Your task to perform on an android device: Play the last video I watched on Youtube Image 0: 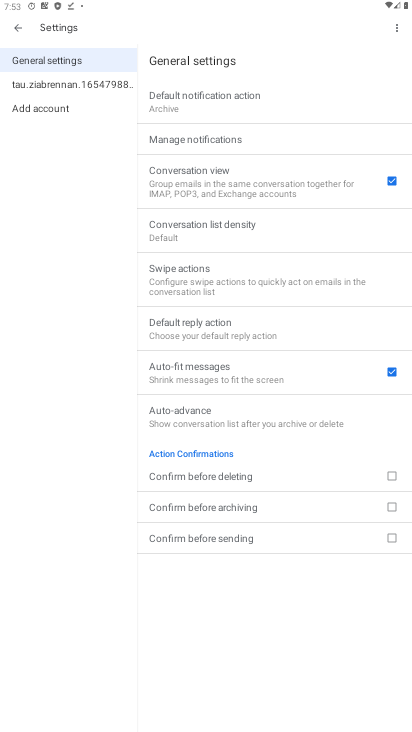
Step 0: press home button
Your task to perform on an android device: Play the last video I watched on Youtube Image 1: 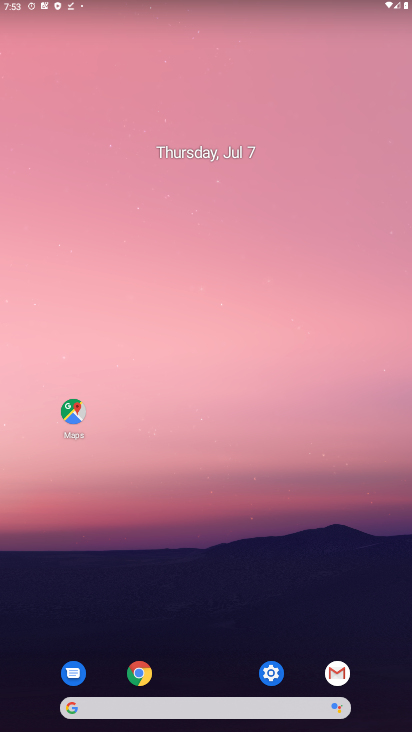
Step 1: drag from (289, 698) to (191, 311)
Your task to perform on an android device: Play the last video I watched on Youtube Image 2: 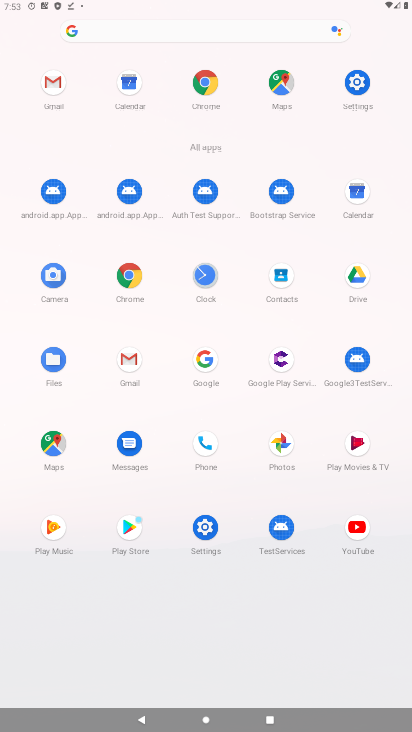
Step 2: click (368, 538)
Your task to perform on an android device: Play the last video I watched on Youtube Image 3: 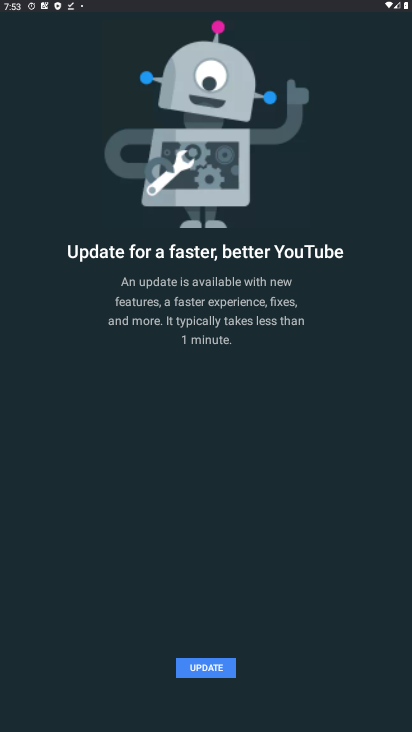
Step 3: click (210, 668)
Your task to perform on an android device: Play the last video I watched on Youtube Image 4: 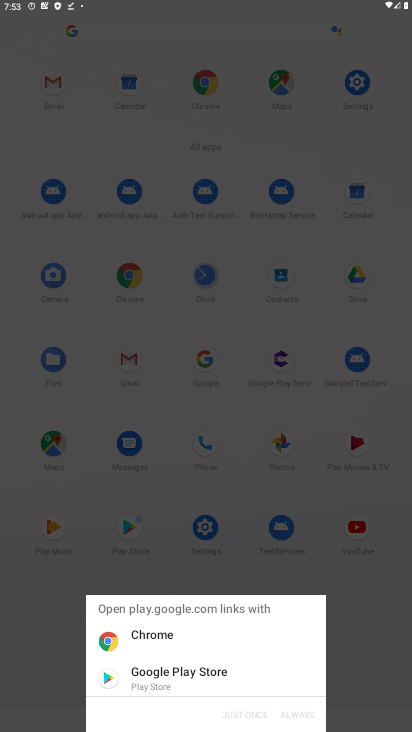
Step 4: click (172, 669)
Your task to perform on an android device: Play the last video I watched on Youtube Image 5: 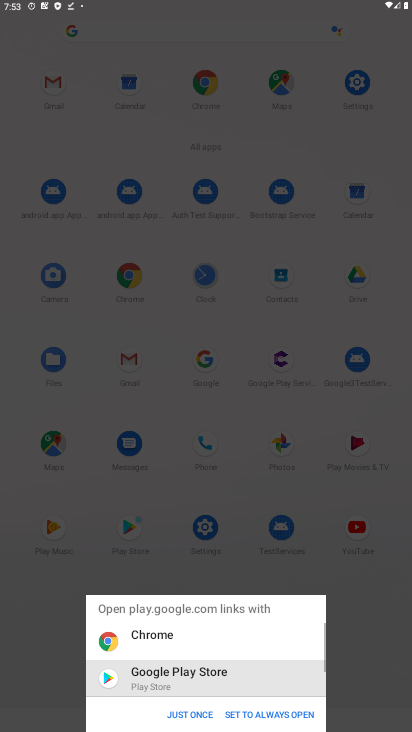
Step 5: click (193, 718)
Your task to perform on an android device: Play the last video I watched on Youtube Image 6: 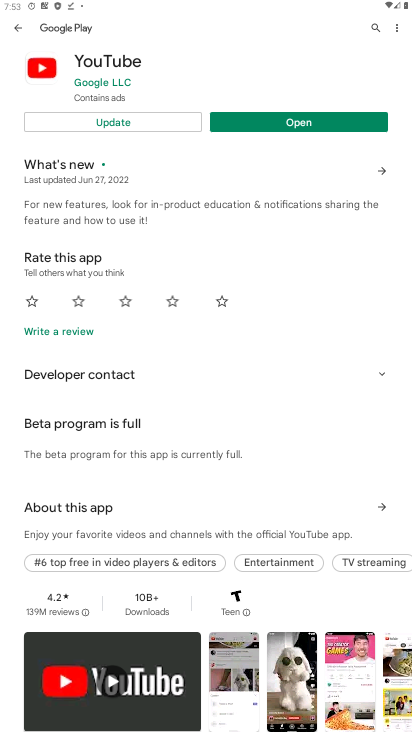
Step 6: click (127, 121)
Your task to perform on an android device: Play the last video I watched on Youtube Image 7: 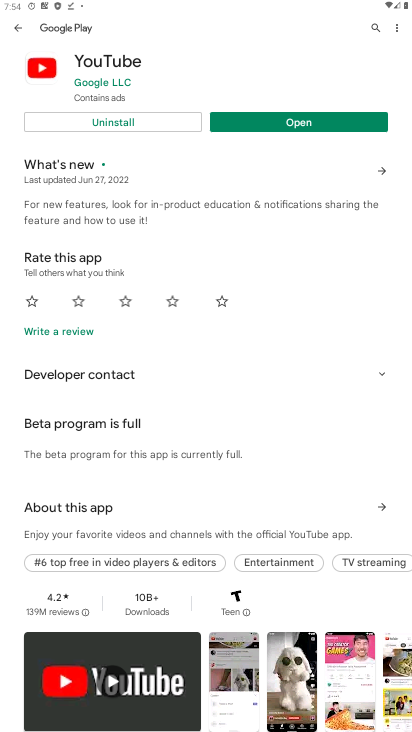
Step 7: click (291, 125)
Your task to perform on an android device: Play the last video I watched on Youtube Image 8: 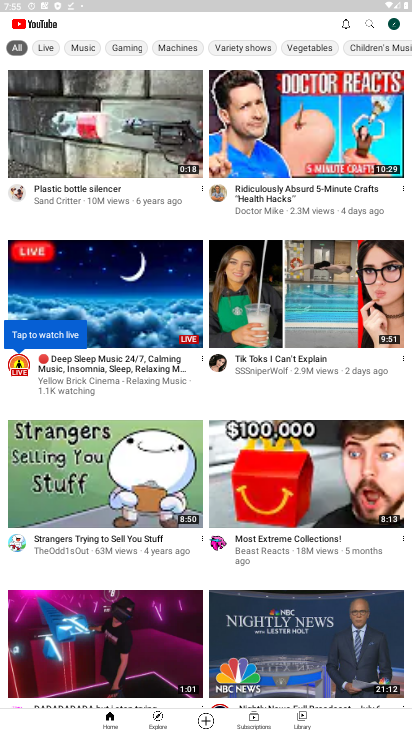
Step 8: click (303, 709)
Your task to perform on an android device: Play the last video I watched on Youtube Image 9: 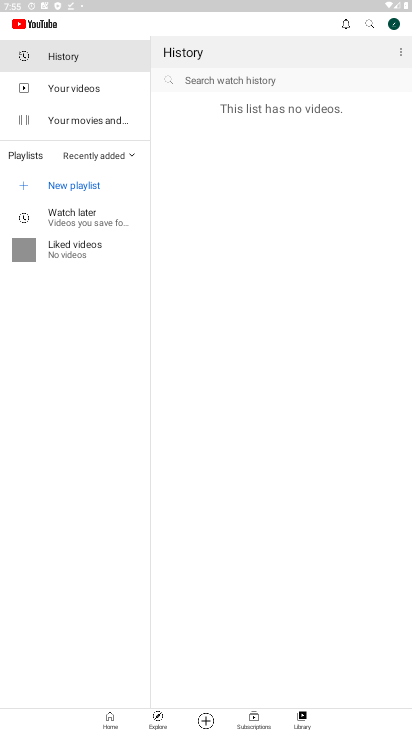
Step 9: task complete